Your task to perform on an android device: What's the weather today? Image 0: 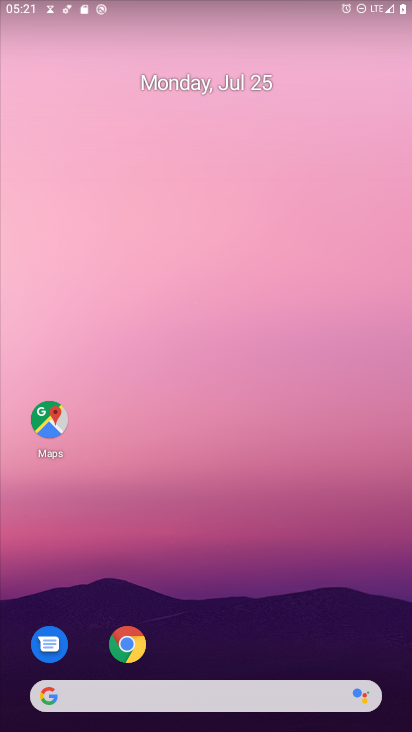
Step 0: click (47, 692)
Your task to perform on an android device: What's the weather today? Image 1: 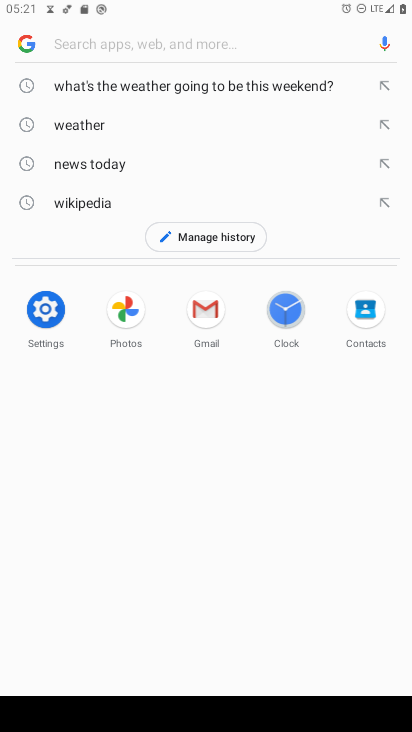
Step 1: type "What's the weather today?"
Your task to perform on an android device: What's the weather today? Image 2: 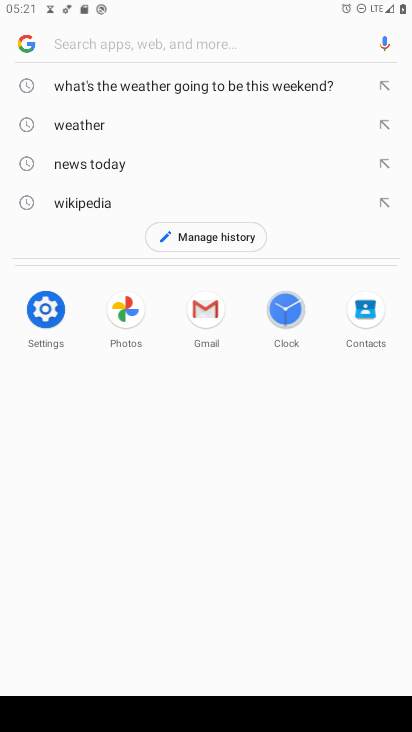
Step 2: click (152, 43)
Your task to perform on an android device: What's the weather today? Image 3: 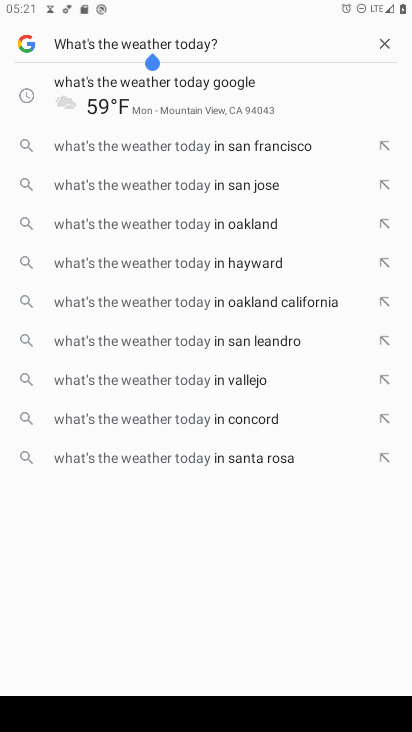
Step 3: press enter
Your task to perform on an android device: What's the weather today? Image 4: 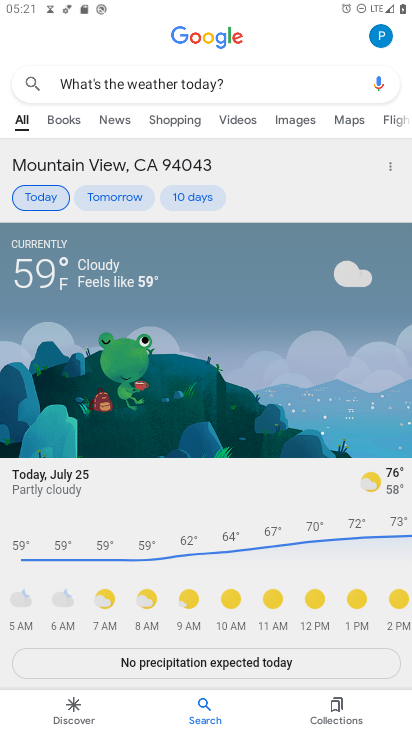
Step 4: task complete